Your task to perform on an android device: Open Google Chrome and open the bookmarks view Image 0: 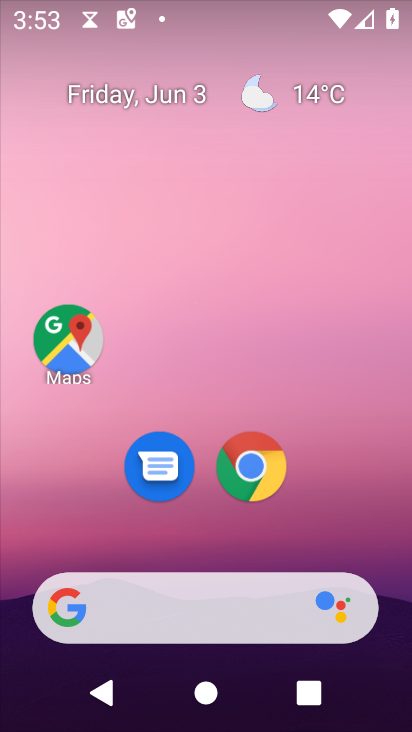
Step 0: click (265, 470)
Your task to perform on an android device: Open Google Chrome and open the bookmarks view Image 1: 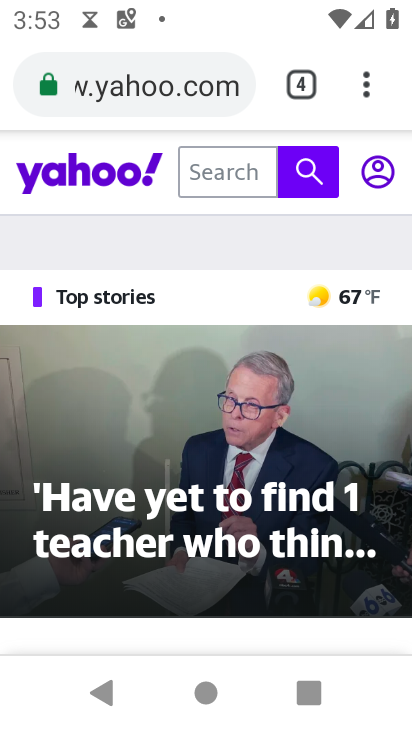
Step 1: click (366, 96)
Your task to perform on an android device: Open Google Chrome and open the bookmarks view Image 2: 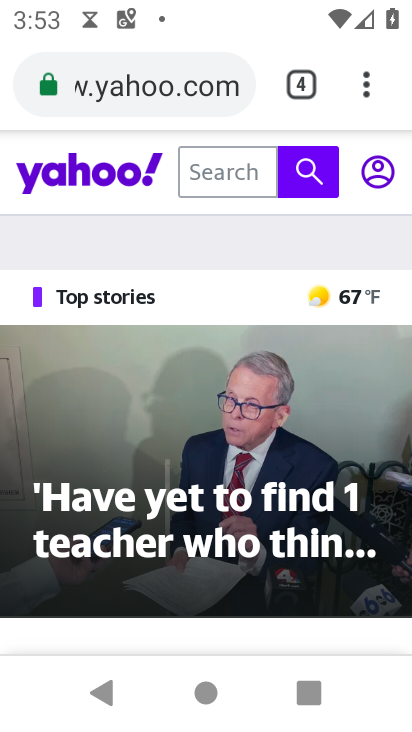
Step 2: click (369, 87)
Your task to perform on an android device: Open Google Chrome and open the bookmarks view Image 3: 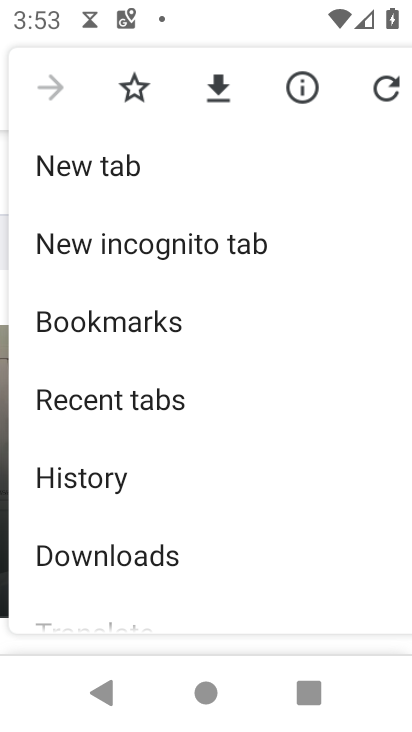
Step 3: click (98, 321)
Your task to perform on an android device: Open Google Chrome and open the bookmarks view Image 4: 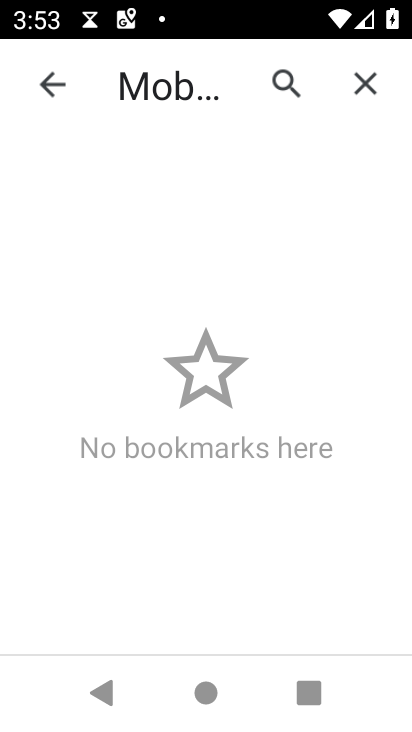
Step 4: task complete